Your task to perform on an android device: Open Amazon Image 0: 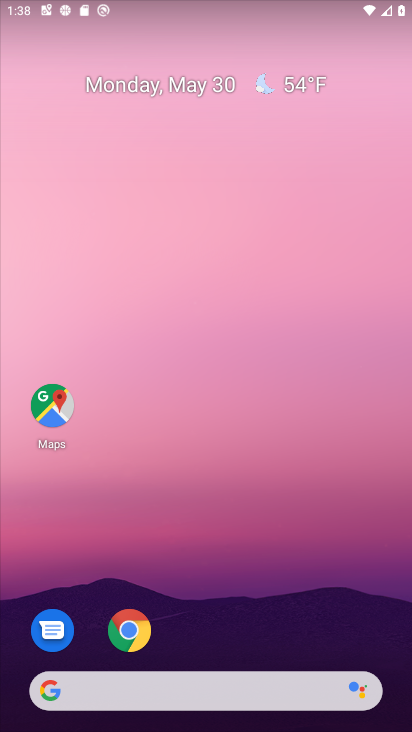
Step 0: press home button
Your task to perform on an android device: Open Amazon Image 1: 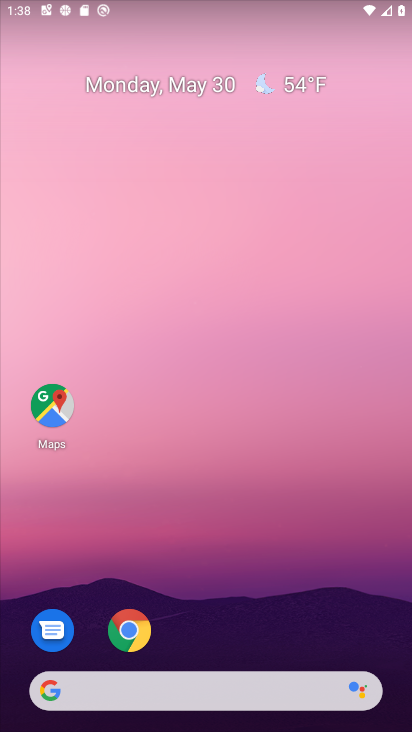
Step 1: click (130, 641)
Your task to perform on an android device: Open Amazon Image 2: 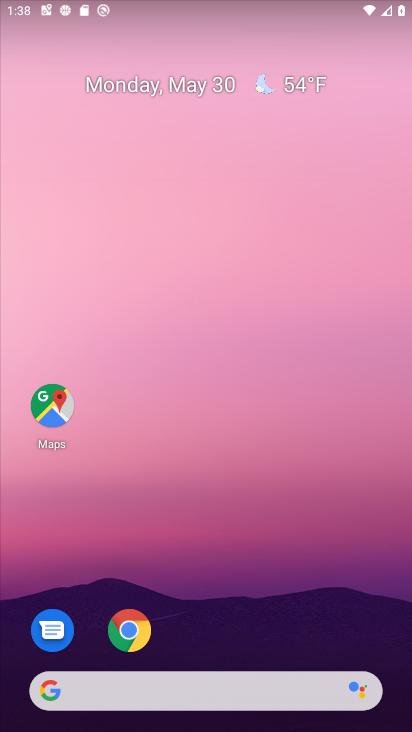
Step 2: click (132, 632)
Your task to perform on an android device: Open Amazon Image 3: 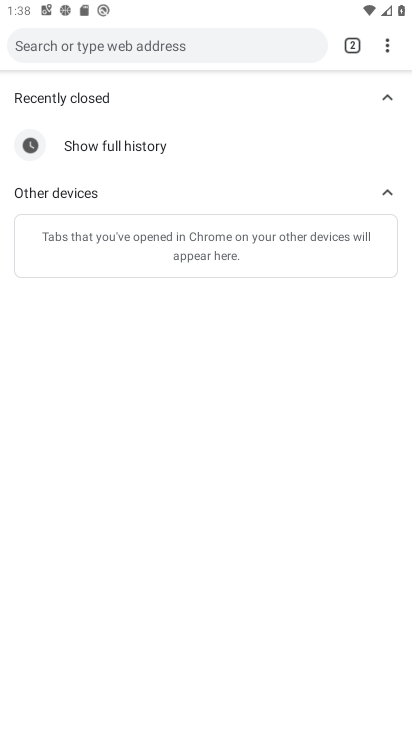
Step 3: drag from (387, 50) to (294, 91)
Your task to perform on an android device: Open Amazon Image 4: 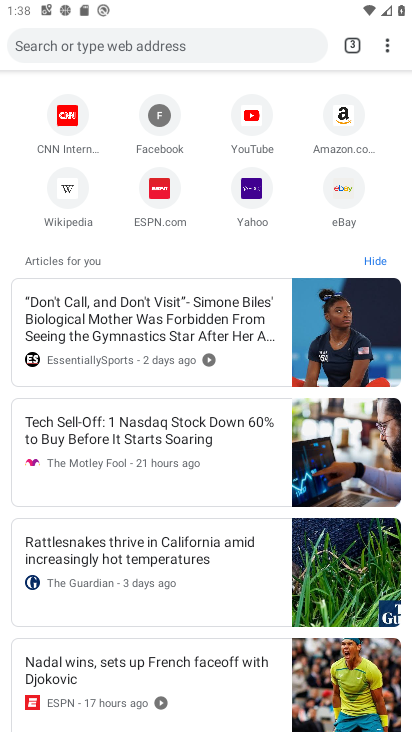
Step 4: click (342, 115)
Your task to perform on an android device: Open Amazon Image 5: 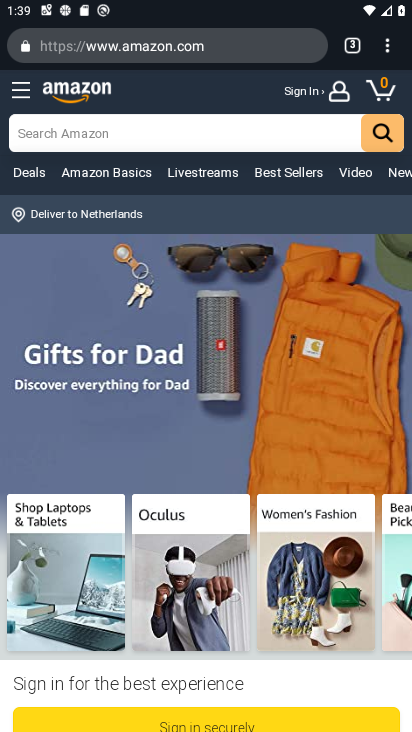
Step 5: task complete